Your task to perform on an android device: View the shopping cart on target.com. Image 0: 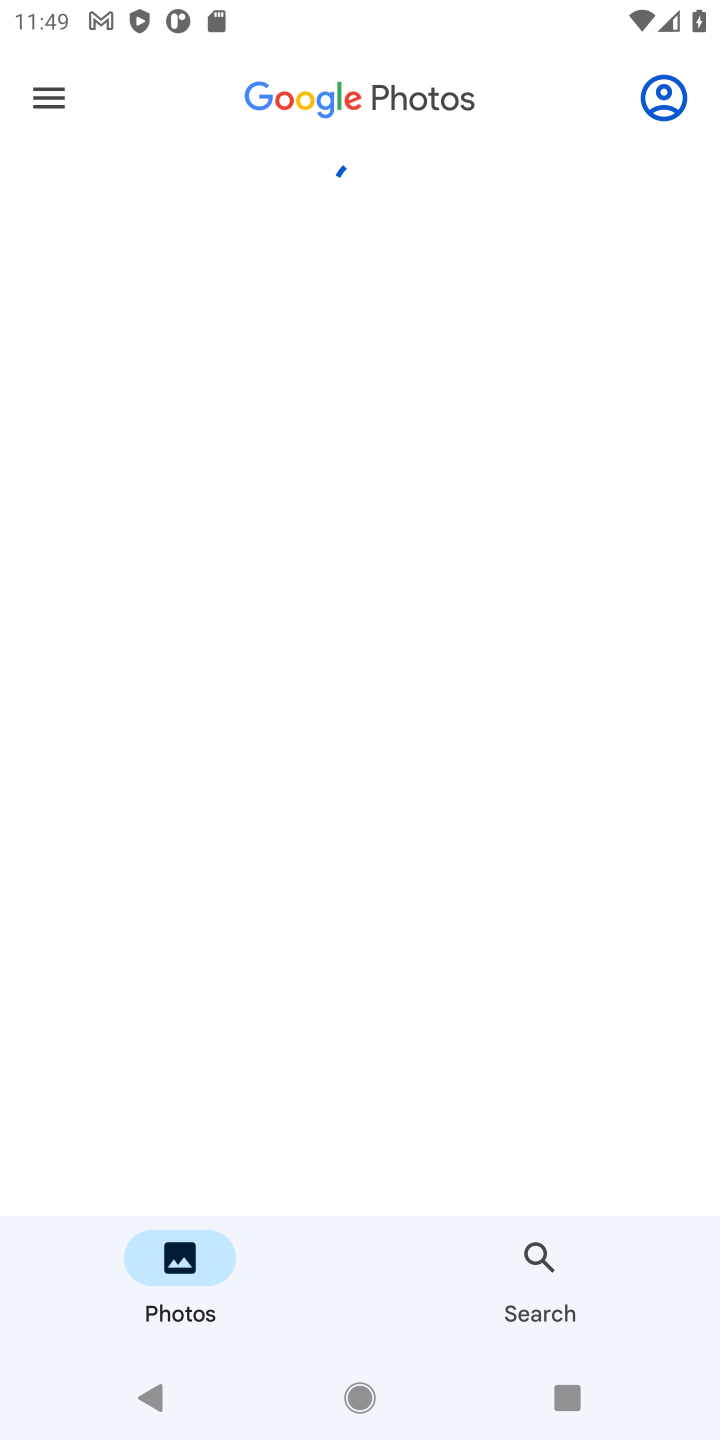
Step 0: press home button
Your task to perform on an android device: View the shopping cart on target.com. Image 1: 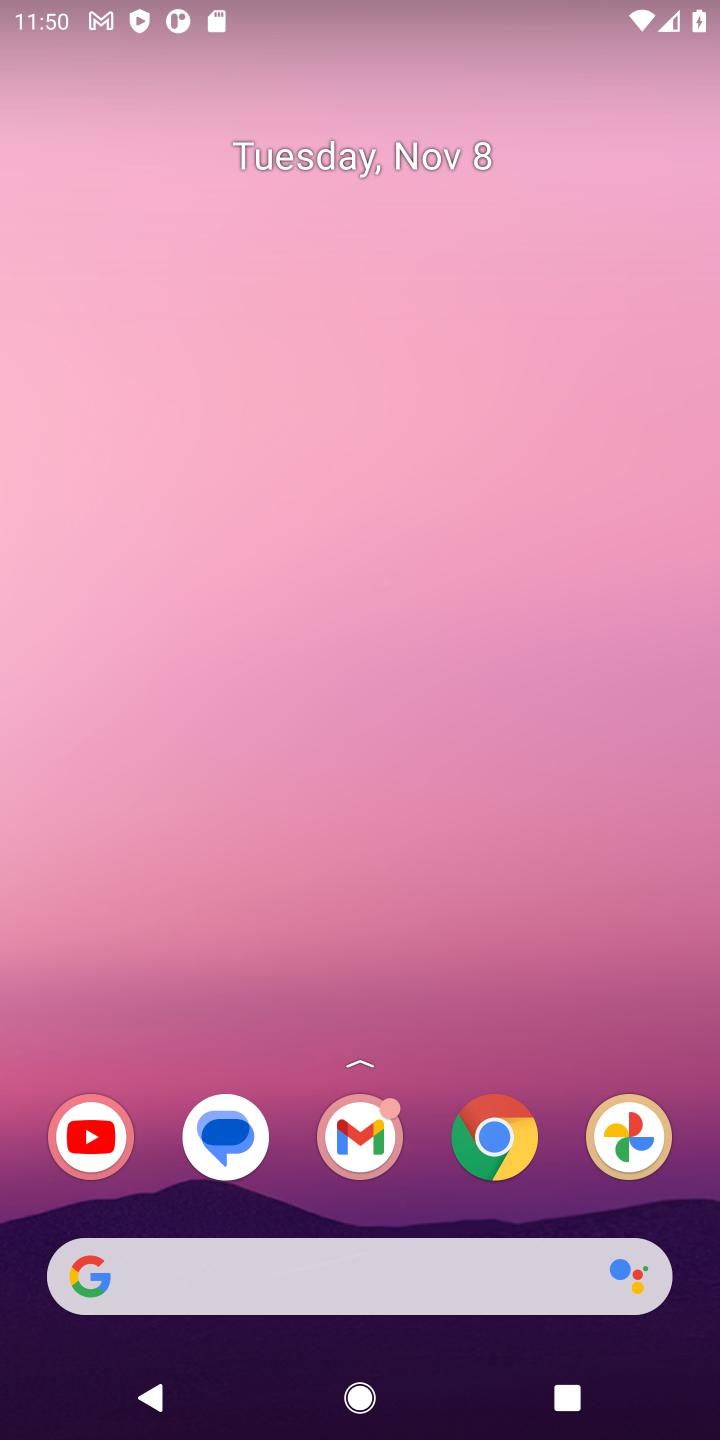
Step 1: click (494, 1142)
Your task to perform on an android device: View the shopping cart on target.com. Image 2: 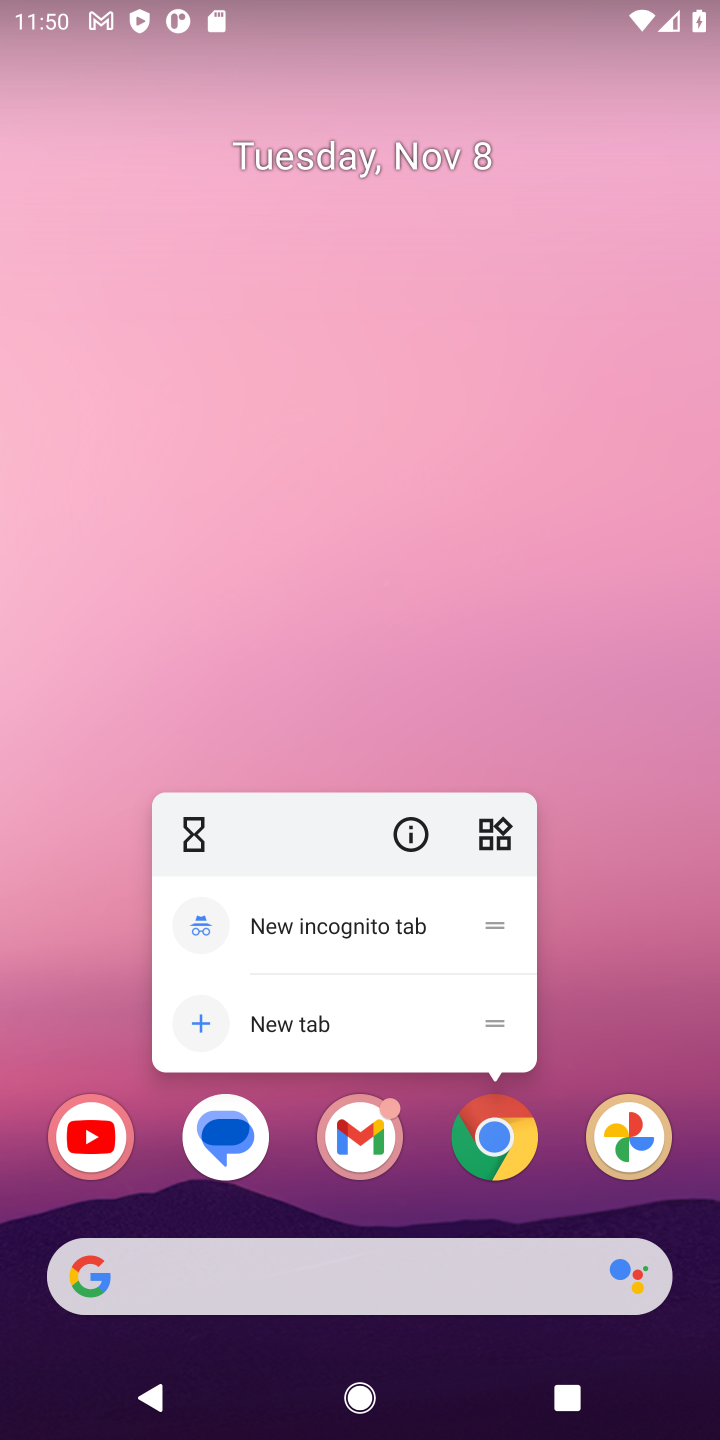
Step 2: click (495, 1137)
Your task to perform on an android device: View the shopping cart on target.com. Image 3: 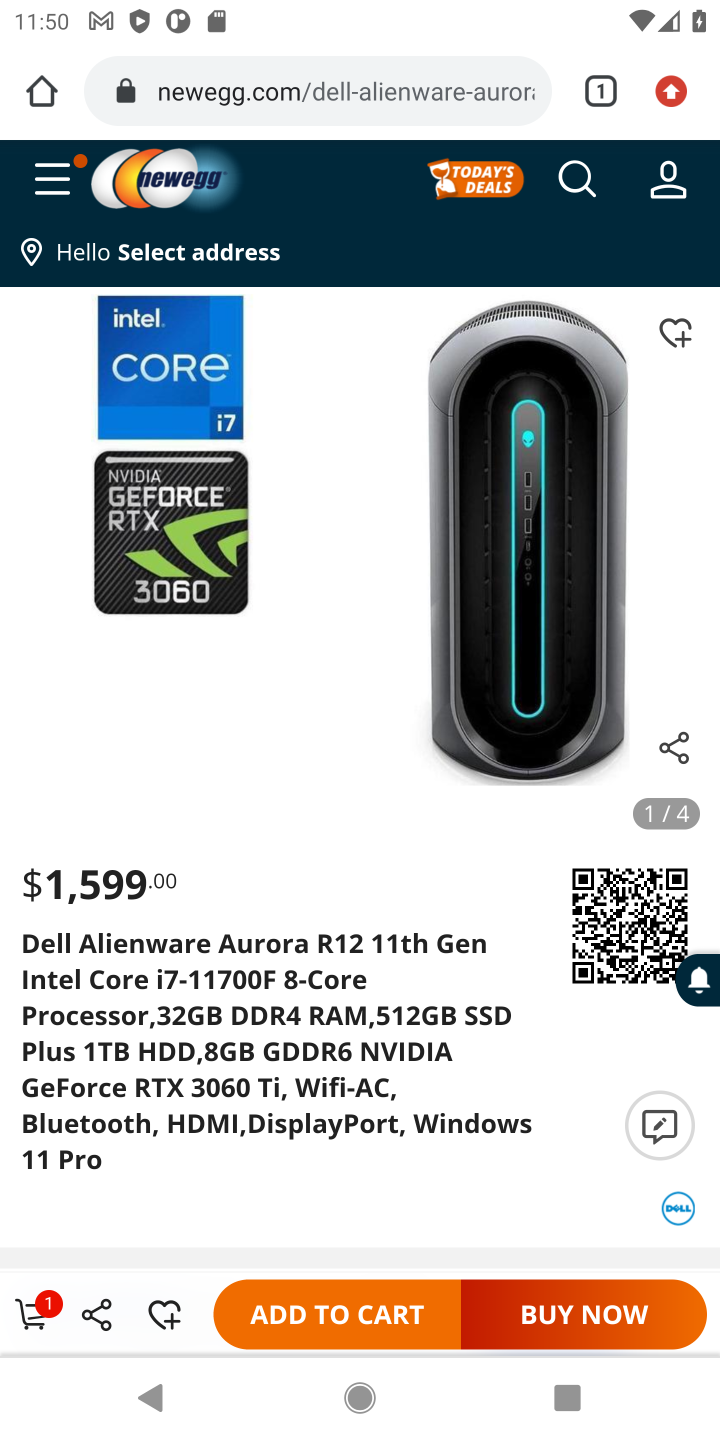
Step 3: click (292, 88)
Your task to perform on an android device: View the shopping cart on target.com. Image 4: 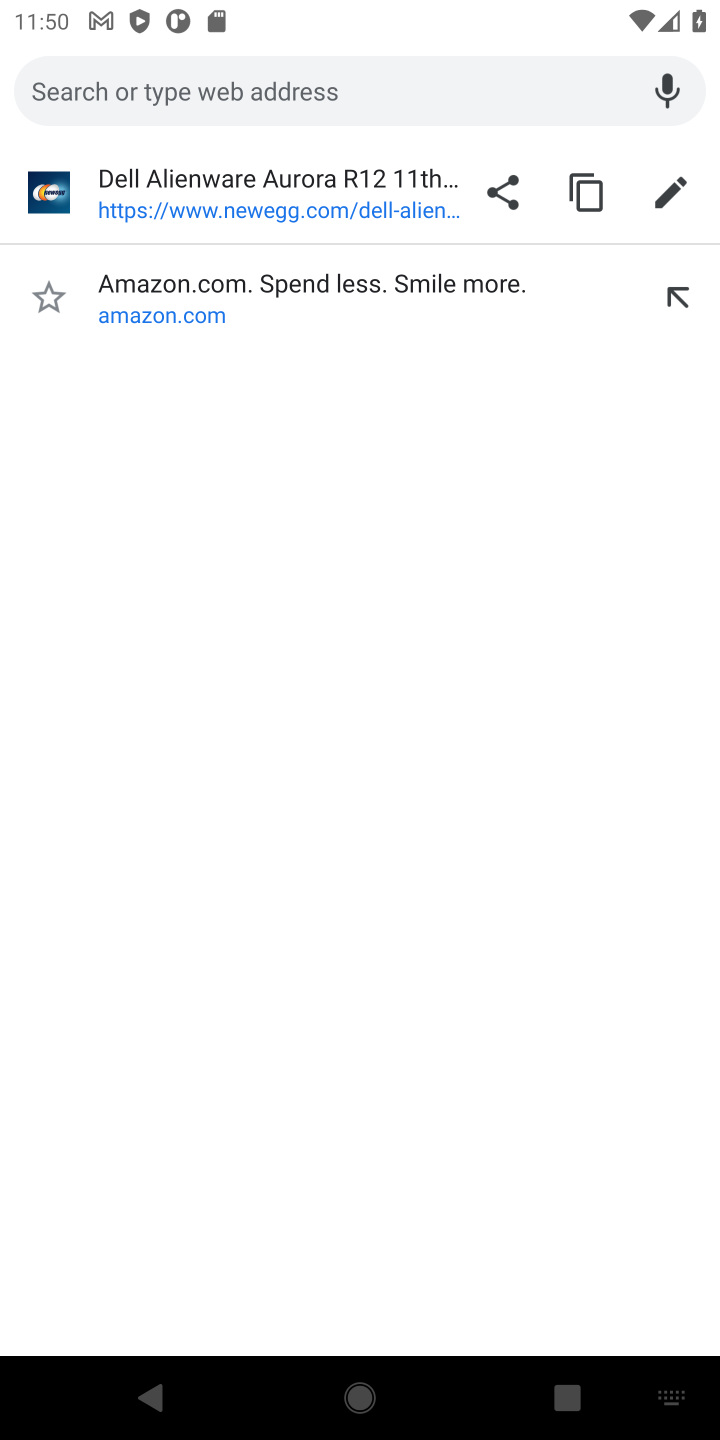
Step 4: type "target.com"
Your task to perform on an android device: View the shopping cart on target.com. Image 5: 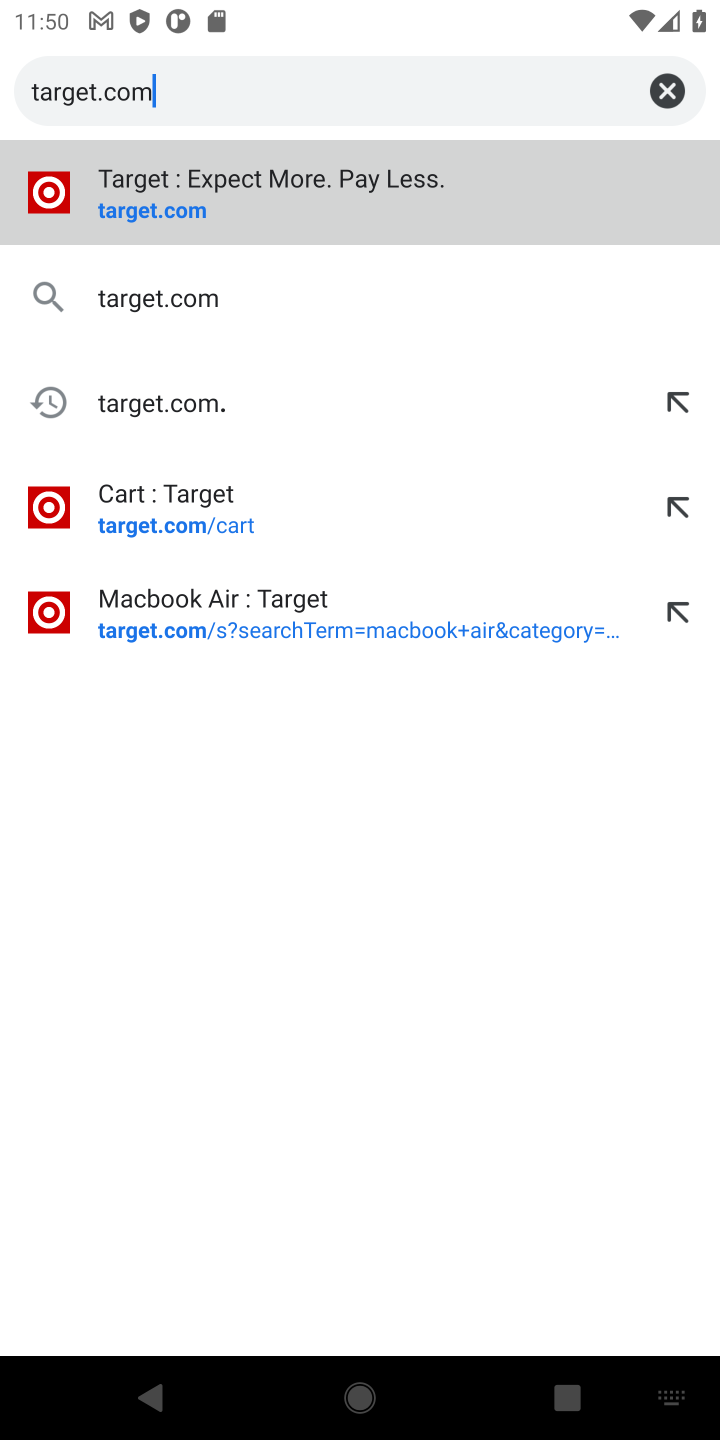
Step 5: click (205, 302)
Your task to perform on an android device: View the shopping cart on target.com. Image 6: 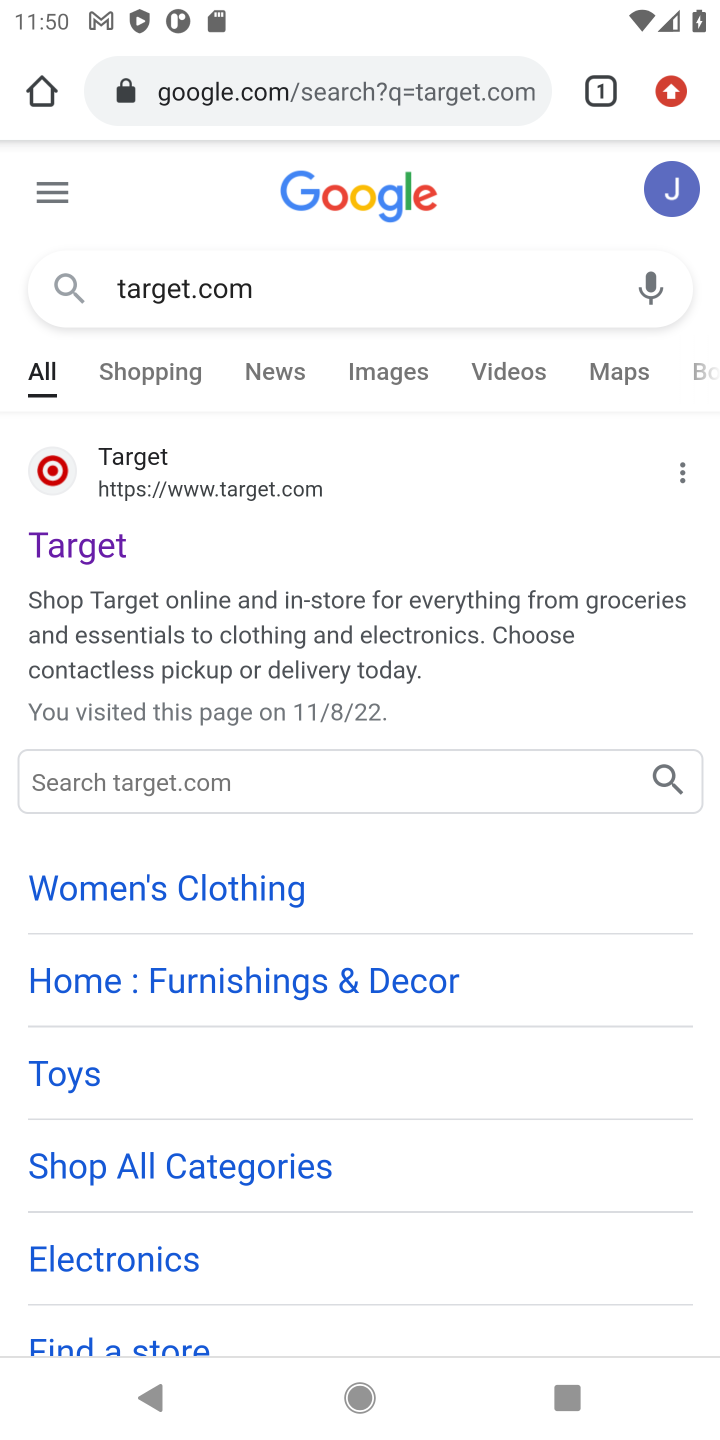
Step 6: click (167, 526)
Your task to perform on an android device: View the shopping cart on target.com. Image 7: 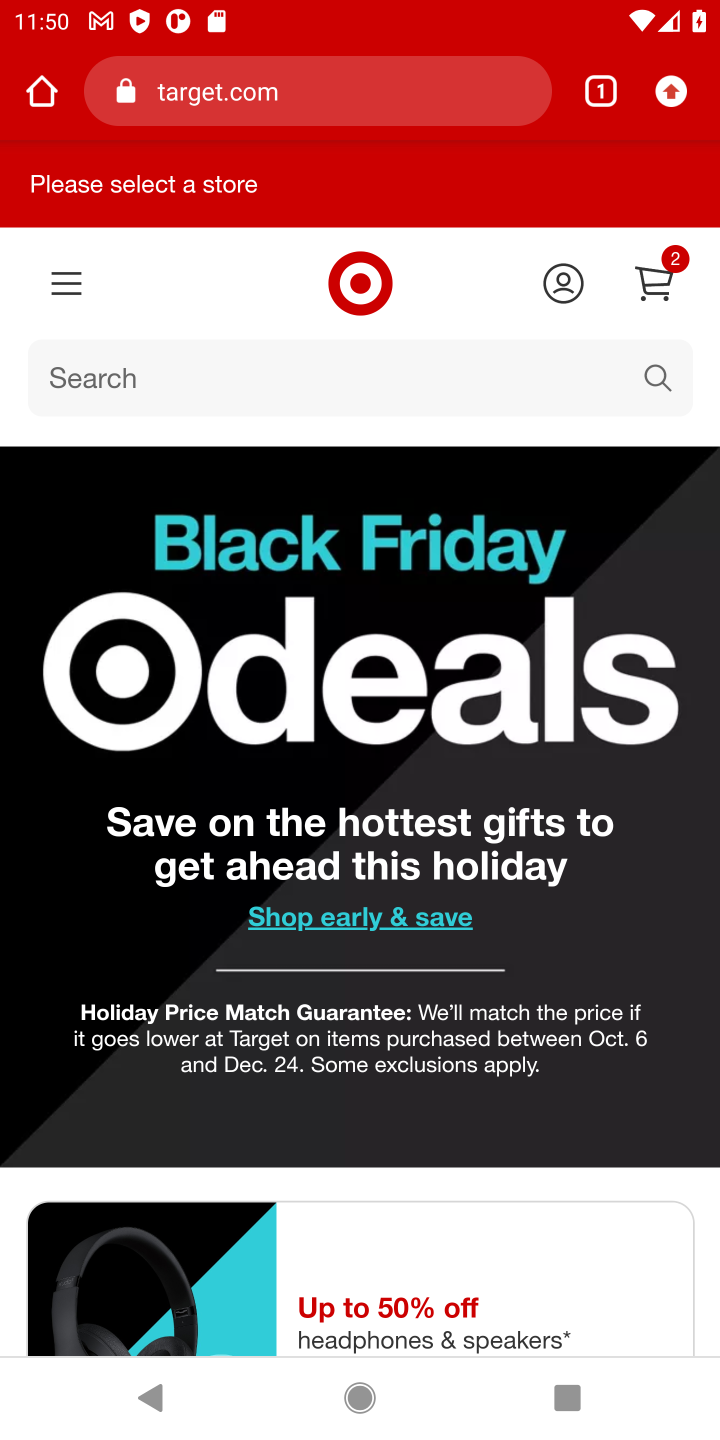
Step 7: click (669, 283)
Your task to perform on an android device: View the shopping cart on target.com. Image 8: 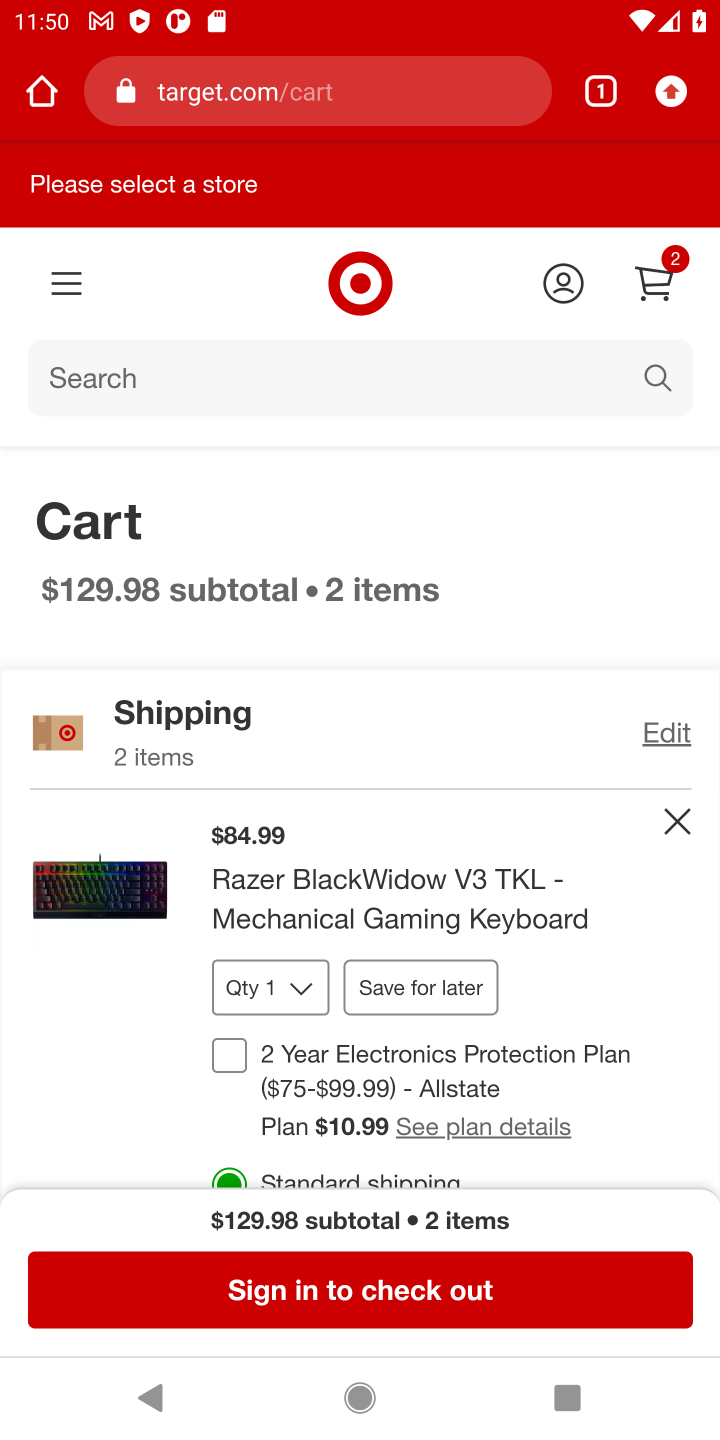
Step 8: task complete